Your task to perform on an android device: uninstall "Google Play Games" Image 0: 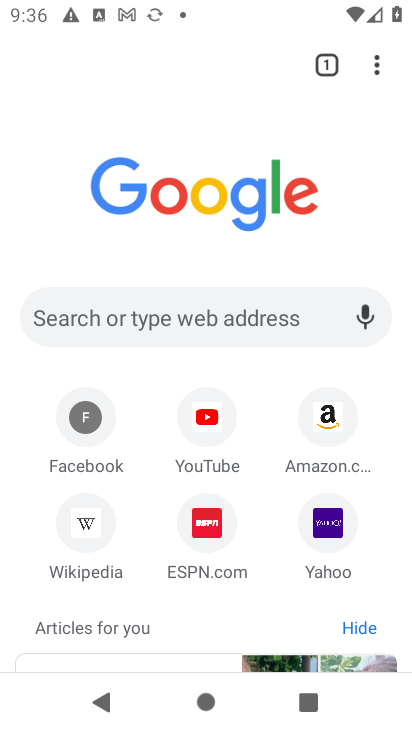
Step 0: press home button
Your task to perform on an android device: uninstall "Google Play Games" Image 1: 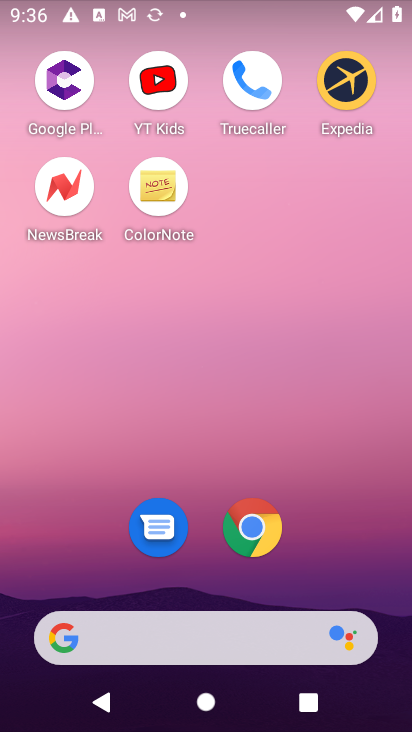
Step 1: drag from (166, 577) to (273, 3)
Your task to perform on an android device: uninstall "Google Play Games" Image 2: 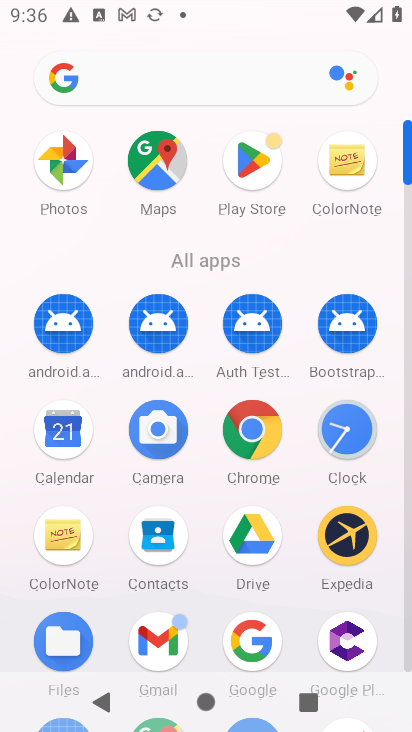
Step 2: click (253, 168)
Your task to perform on an android device: uninstall "Google Play Games" Image 3: 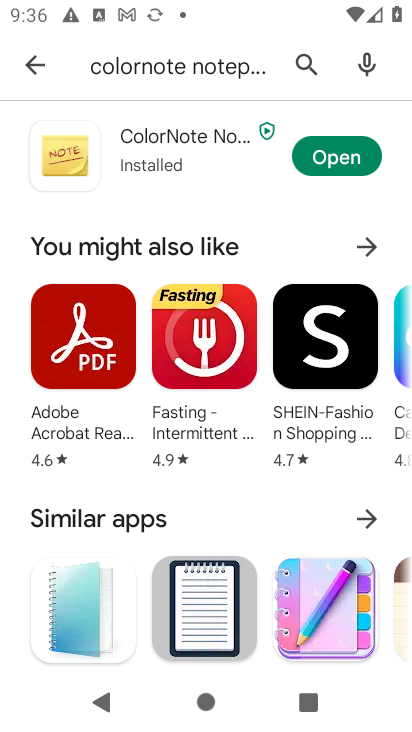
Step 3: click (203, 85)
Your task to perform on an android device: uninstall "Google Play Games" Image 4: 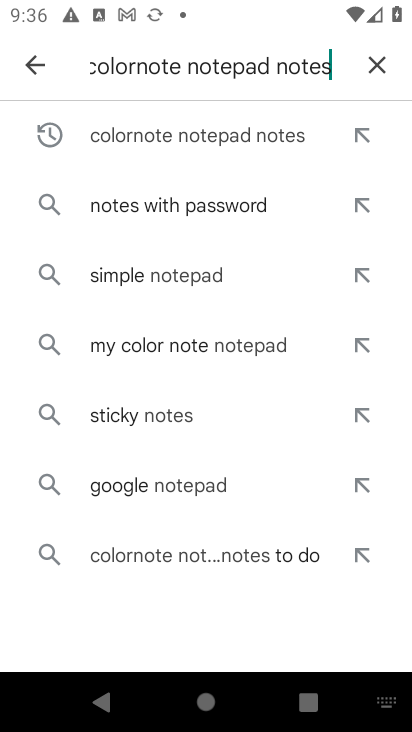
Step 4: click (368, 68)
Your task to perform on an android device: uninstall "Google Play Games" Image 5: 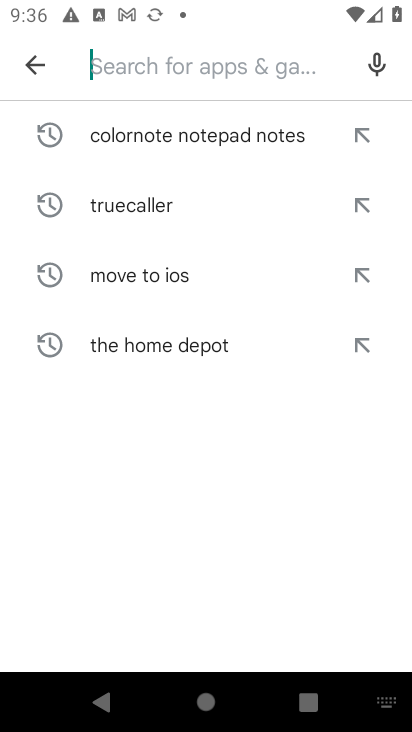
Step 5: type "google play games"
Your task to perform on an android device: uninstall "Google Play Games" Image 6: 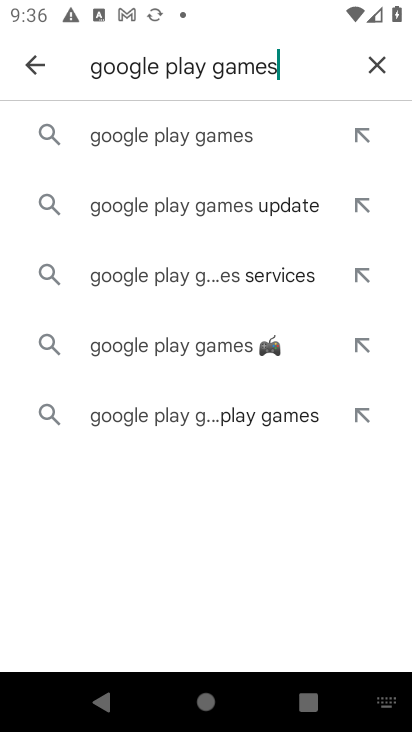
Step 6: click (138, 144)
Your task to perform on an android device: uninstall "Google Play Games" Image 7: 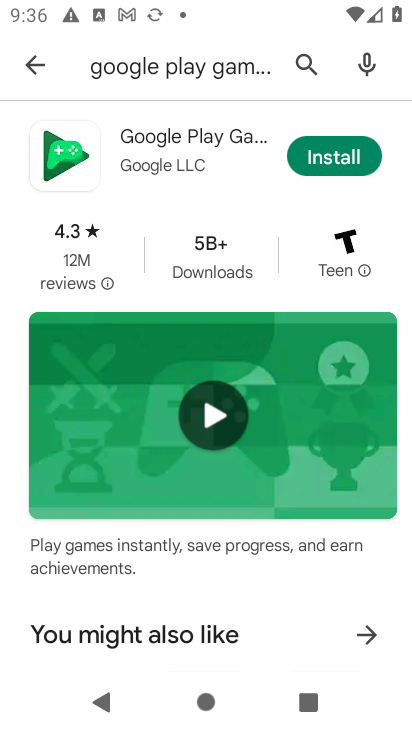
Step 7: task complete